Your task to perform on an android device: Open location settings Image 0: 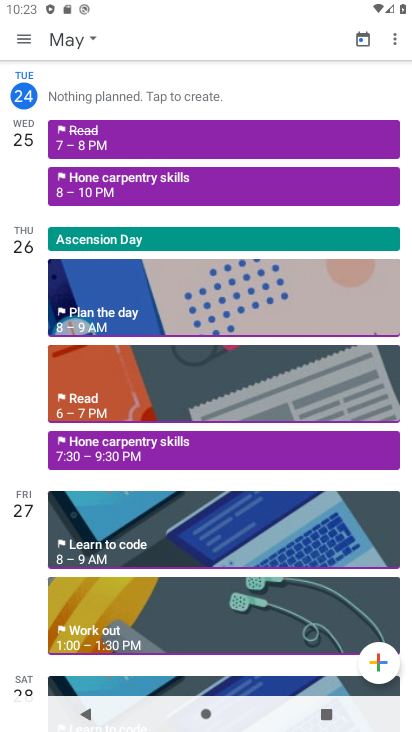
Step 0: press home button
Your task to perform on an android device: Open location settings Image 1: 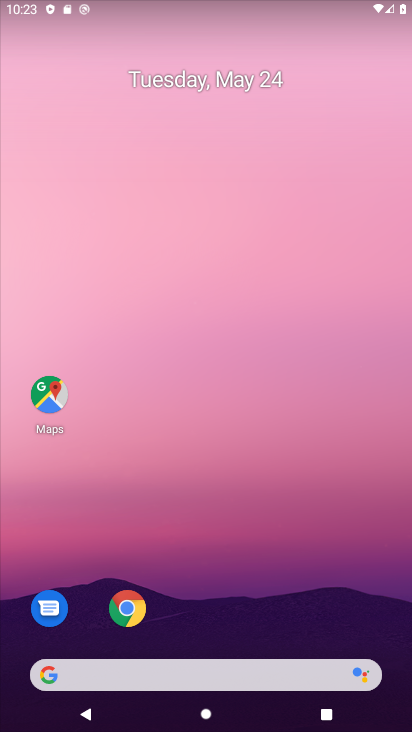
Step 1: drag from (379, 623) to (300, 10)
Your task to perform on an android device: Open location settings Image 2: 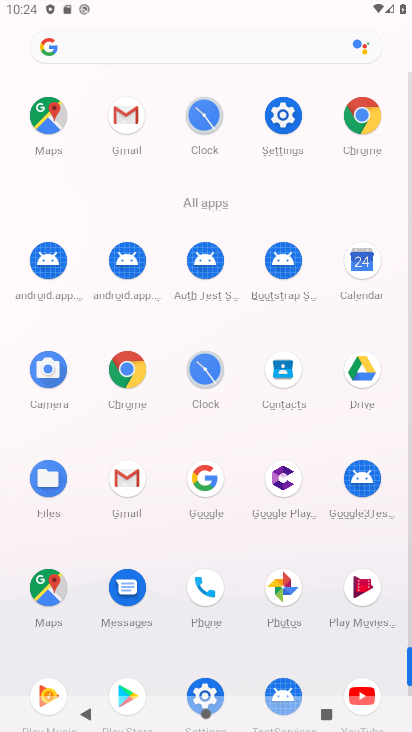
Step 2: click (202, 689)
Your task to perform on an android device: Open location settings Image 3: 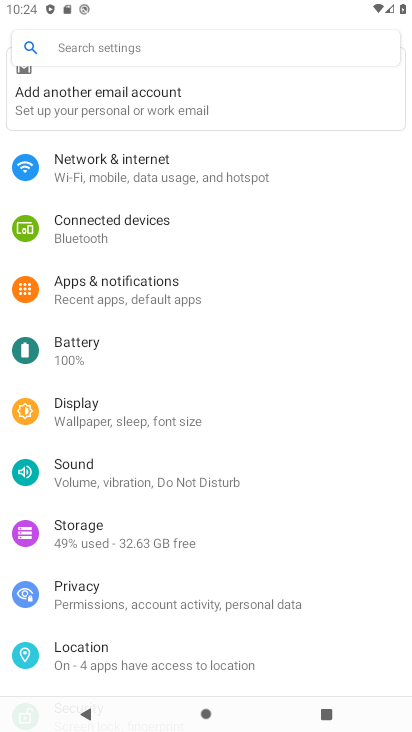
Step 3: drag from (323, 569) to (292, 339)
Your task to perform on an android device: Open location settings Image 4: 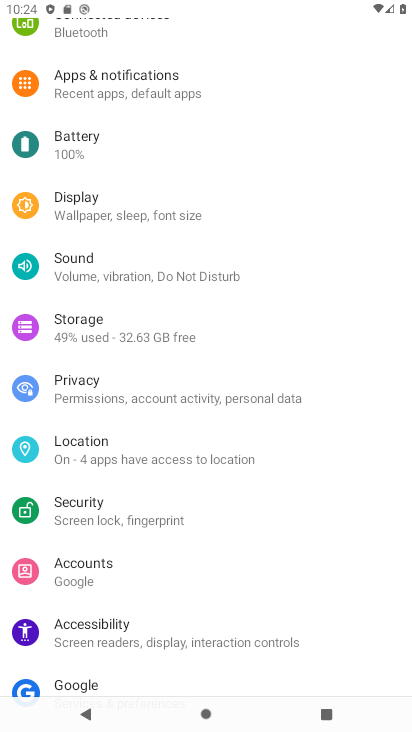
Step 4: drag from (286, 606) to (313, 243)
Your task to perform on an android device: Open location settings Image 5: 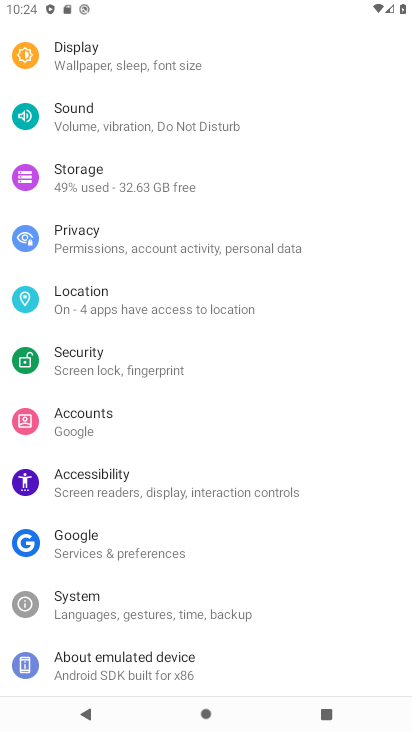
Step 5: click (78, 297)
Your task to perform on an android device: Open location settings Image 6: 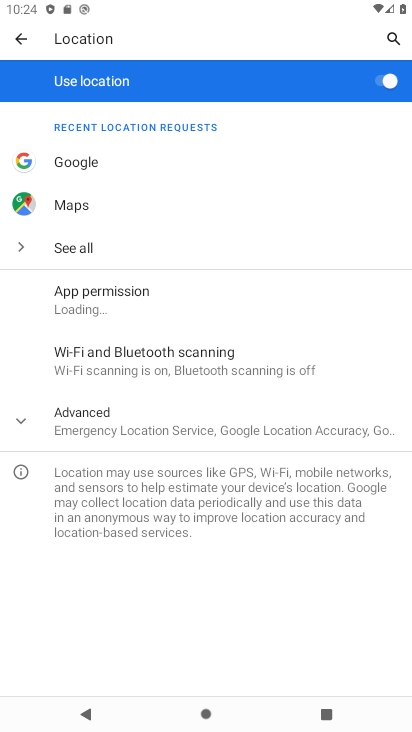
Step 6: task complete